Your task to perform on an android device: Open Yahoo.com Image 0: 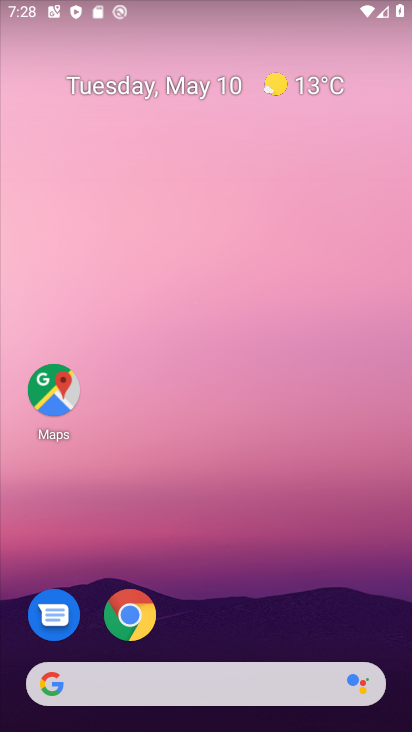
Step 0: drag from (312, 583) to (272, 20)
Your task to perform on an android device: Open Yahoo.com Image 1: 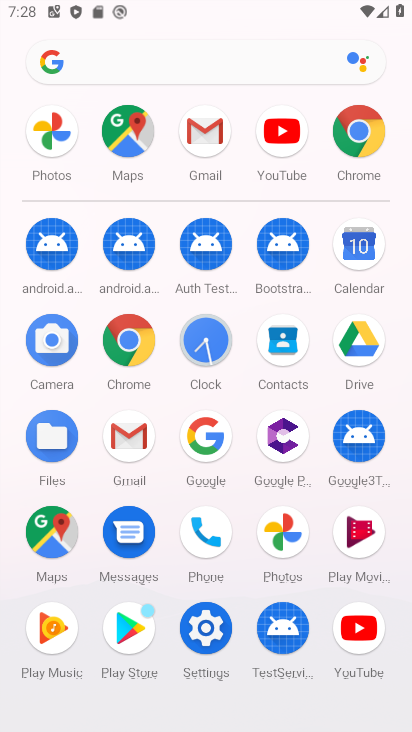
Step 1: click (362, 156)
Your task to perform on an android device: Open Yahoo.com Image 2: 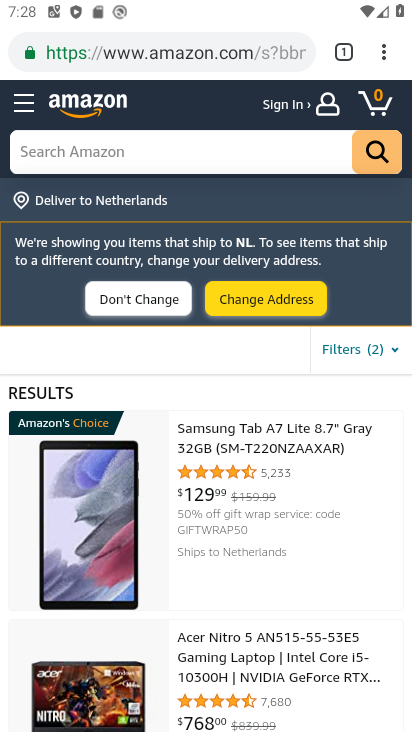
Step 2: click (207, 47)
Your task to perform on an android device: Open Yahoo.com Image 3: 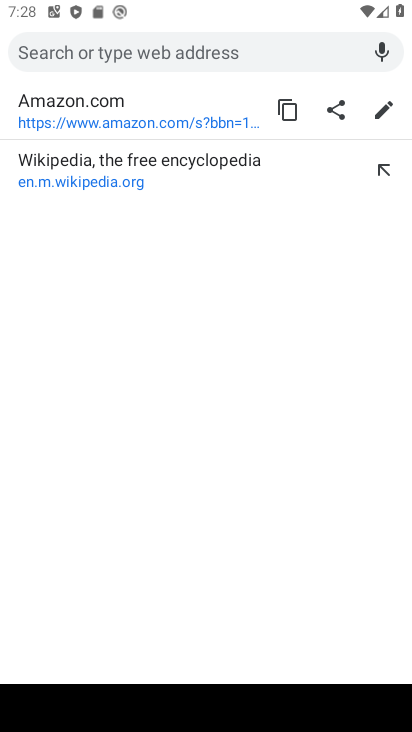
Step 3: type "yaoo.com"
Your task to perform on an android device: Open Yahoo.com Image 4: 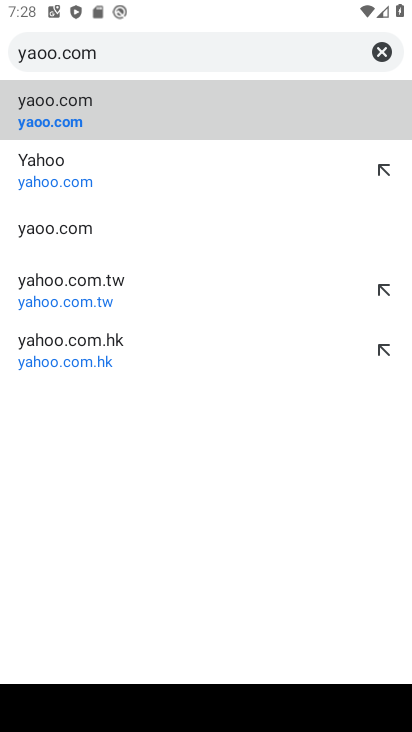
Step 4: click (65, 169)
Your task to perform on an android device: Open Yahoo.com Image 5: 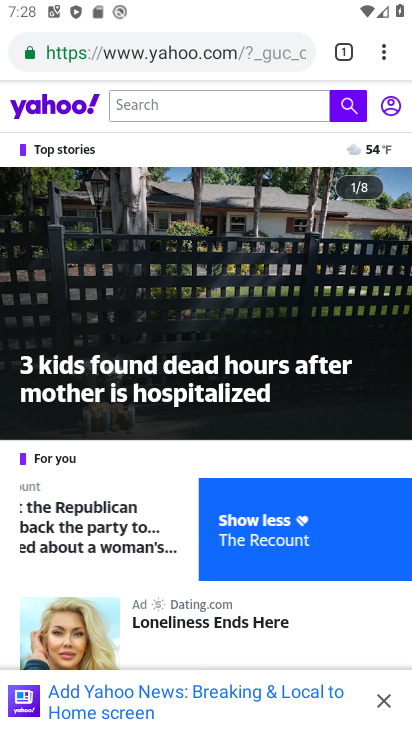
Step 5: task complete